Your task to perform on an android device: open a bookmark in the chrome app Image 0: 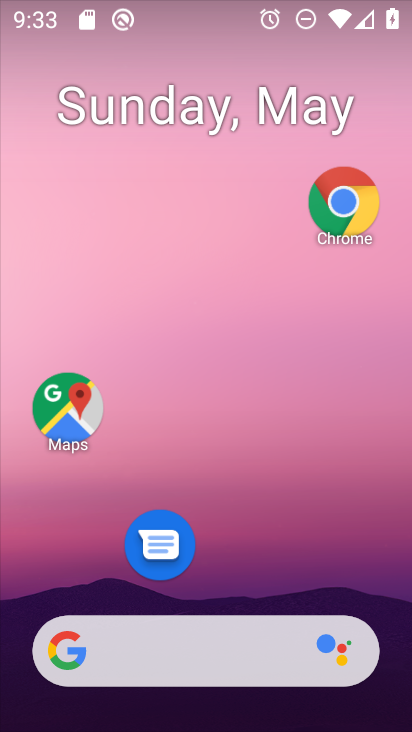
Step 0: click (347, 206)
Your task to perform on an android device: open a bookmark in the chrome app Image 1: 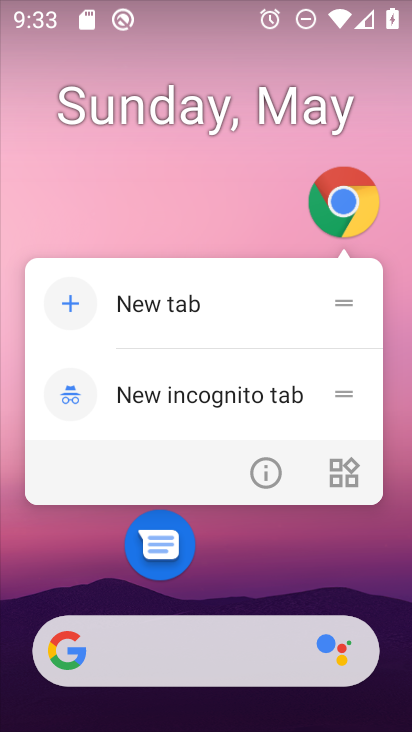
Step 1: click (342, 228)
Your task to perform on an android device: open a bookmark in the chrome app Image 2: 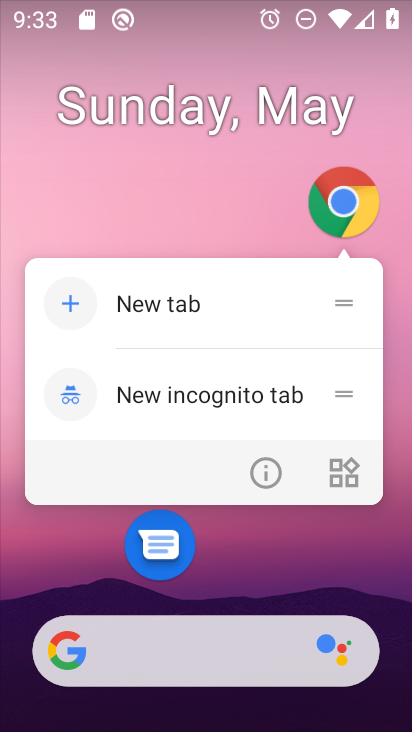
Step 2: click (342, 220)
Your task to perform on an android device: open a bookmark in the chrome app Image 3: 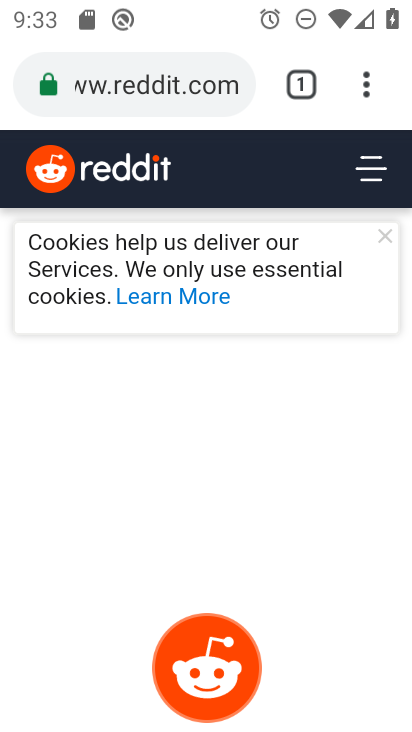
Step 3: click (359, 94)
Your task to perform on an android device: open a bookmark in the chrome app Image 4: 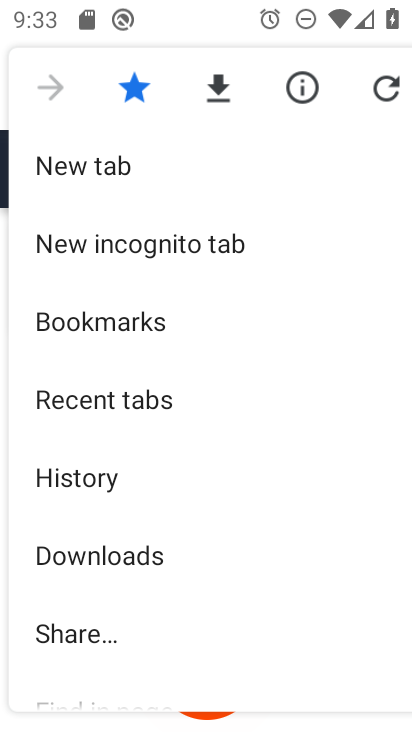
Step 4: click (78, 326)
Your task to perform on an android device: open a bookmark in the chrome app Image 5: 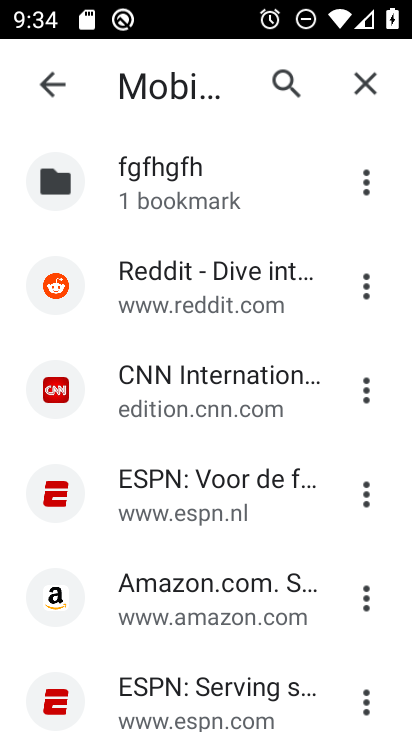
Step 5: click (179, 496)
Your task to perform on an android device: open a bookmark in the chrome app Image 6: 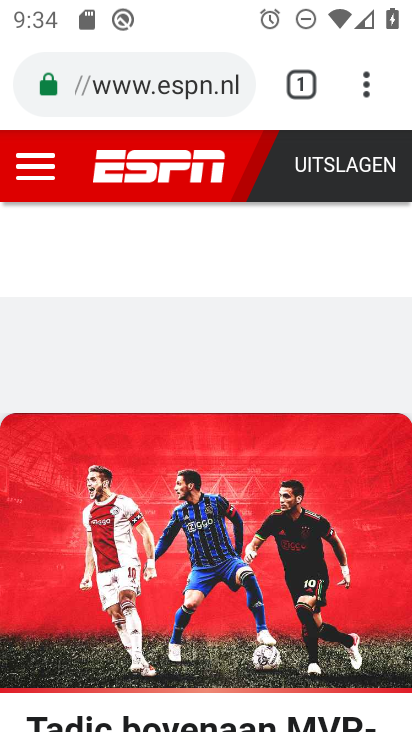
Step 6: task complete